Your task to perform on an android device: check google app version Image 0: 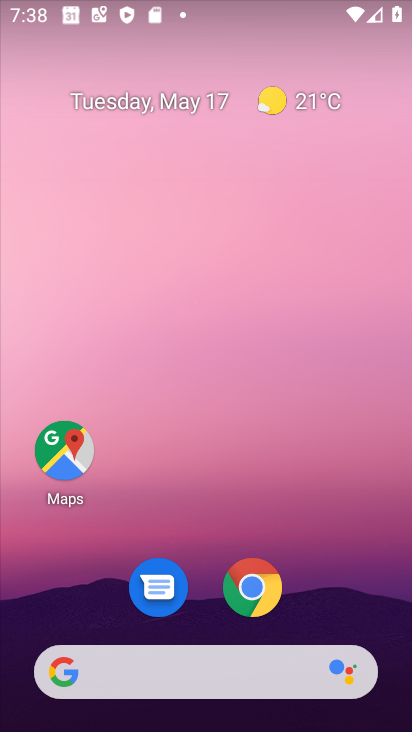
Step 0: drag from (376, 610) to (373, 207)
Your task to perform on an android device: check google app version Image 1: 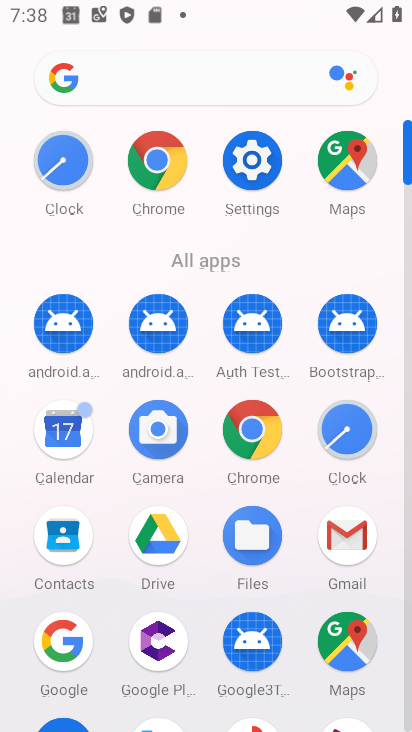
Step 1: click (66, 644)
Your task to perform on an android device: check google app version Image 2: 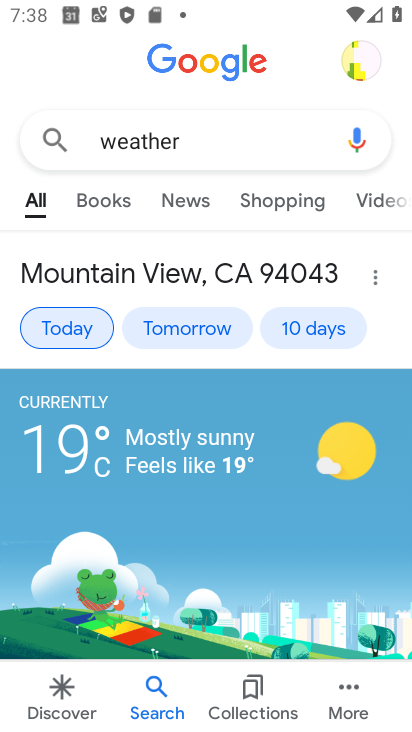
Step 2: click (343, 706)
Your task to perform on an android device: check google app version Image 3: 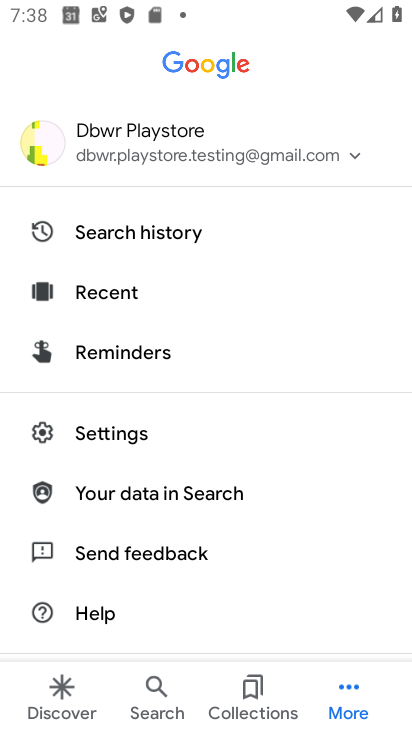
Step 3: click (140, 431)
Your task to perform on an android device: check google app version Image 4: 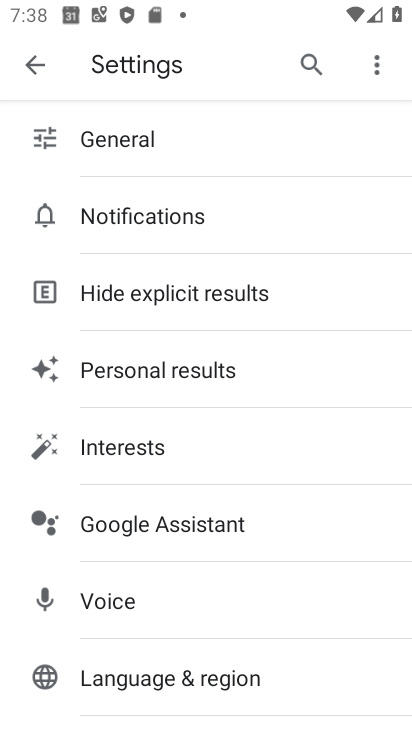
Step 4: drag from (346, 581) to (353, 478)
Your task to perform on an android device: check google app version Image 5: 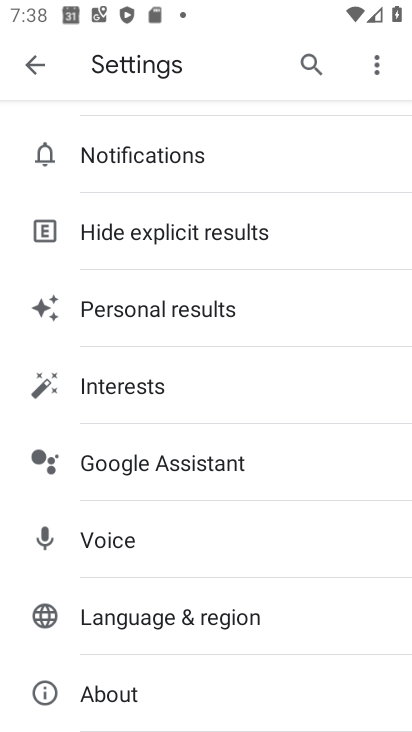
Step 5: click (159, 703)
Your task to perform on an android device: check google app version Image 6: 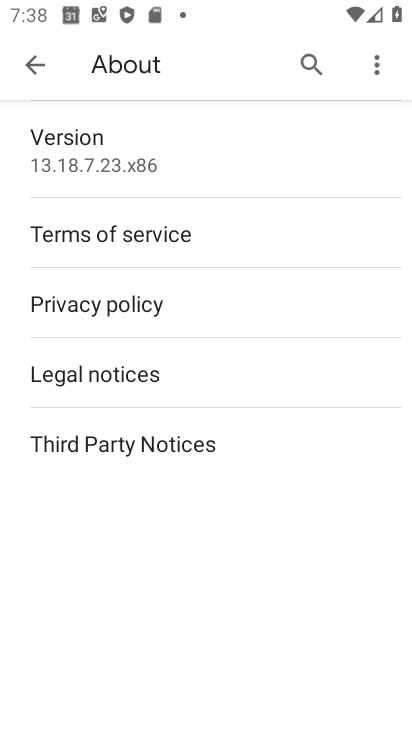
Step 6: task complete